Your task to perform on an android device: Open Google Chrome and open the bookmarks view Image 0: 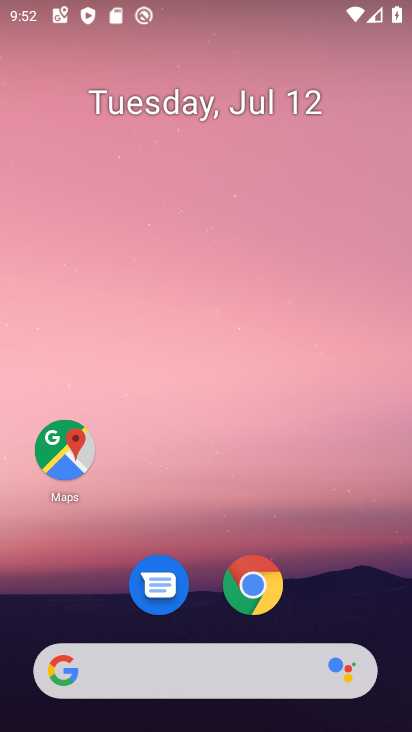
Step 0: click (263, 588)
Your task to perform on an android device: Open Google Chrome and open the bookmarks view Image 1: 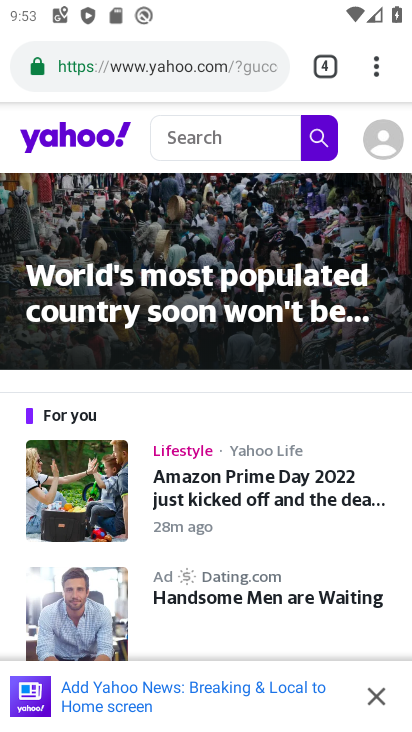
Step 1: task complete